Your task to perform on an android device: Go to wifi settings Image 0: 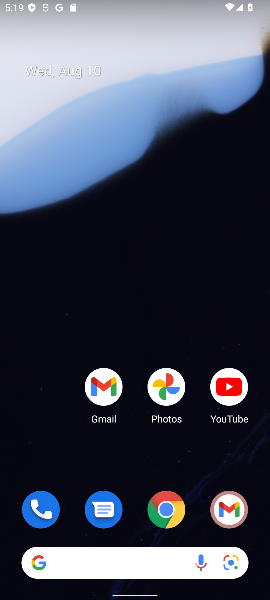
Step 0: drag from (132, 445) to (198, 32)
Your task to perform on an android device: Go to wifi settings Image 1: 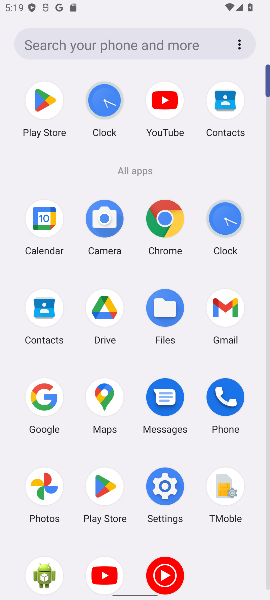
Step 1: click (162, 478)
Your task to perform on an android device: Go to wifi settings Image 2: 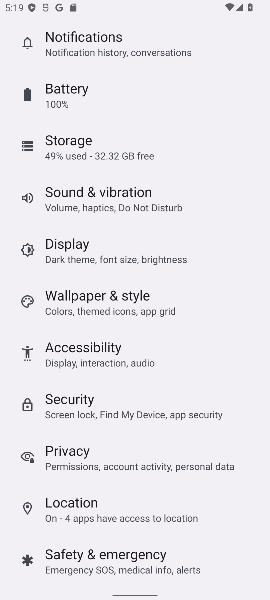
Step 2: drag from (102, 82) to (51, 475)
Your task to perform on an android device: Go to wifi settings Image 3: 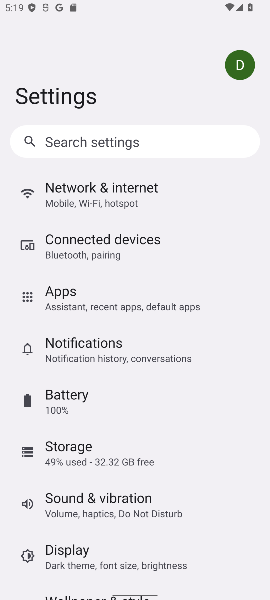
Step 3: click (93, 189)
Your task to perform on an android device: Go to wifi settings Image 4: 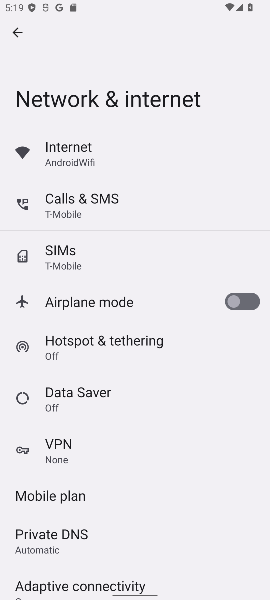
Step 4: click (76, 143)
Your task to perform on an android device: Go to wifi settings Image 5: 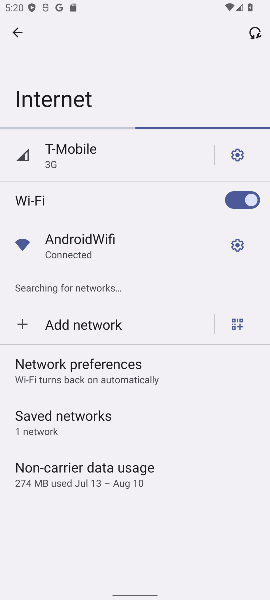
Step 5: click (243, 243)
Your task to perform on an android device: Go to wifi settings Image 6: 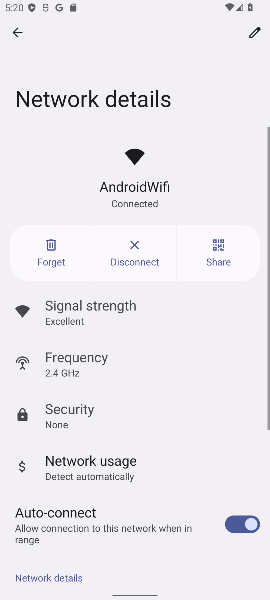
Step 6: task complete